Your task to perform on an android device: Search for vegetarian restaurants on Maps Image 0: 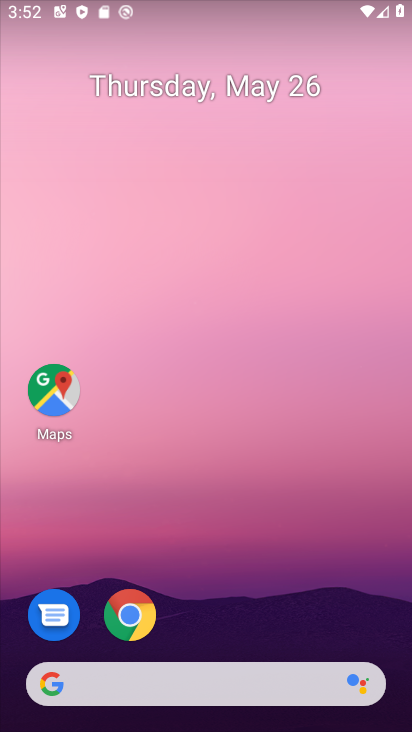
Step 0: click (60, 404)
Your task to perform on an android device: Search for vegetarian restaurants on Maps Image 1: 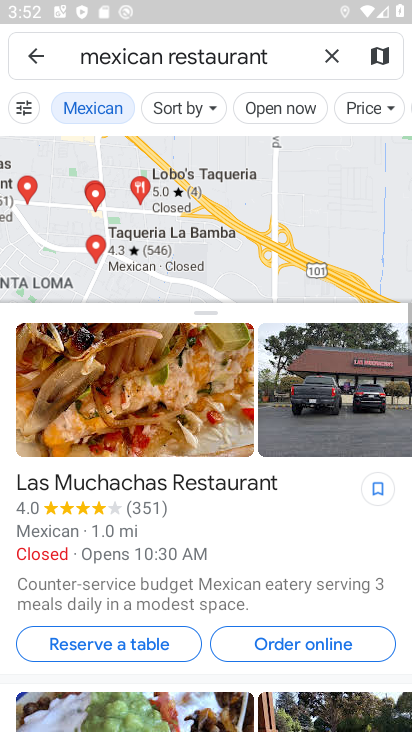
Step 1: click (331, 55)
Your task to perform on an android device: Search for vegetarian restaurants on Maps Image 2: 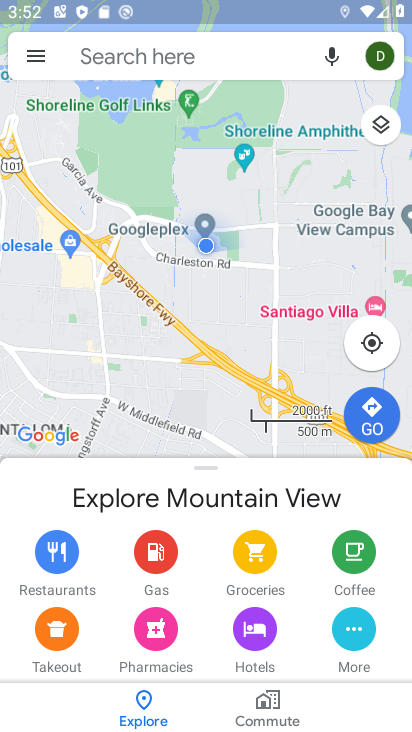
Step 2: click (231, 59)
Your task to perform on an android device: Search for vegetarian restaurants on Maps Image 3: 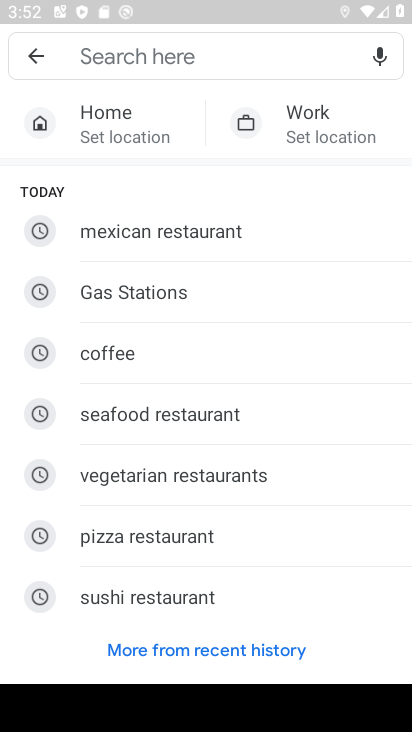
Step 3: click (217, 472)
Your task to perform on an android device: Search for vegetarian restaurants on Maps Image 4: 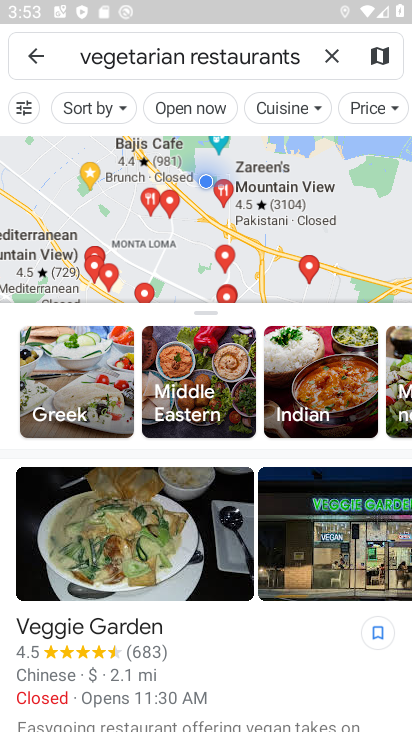
Step 4: task complete